Your task to perform on an android device: Go to battery settings Image 0: 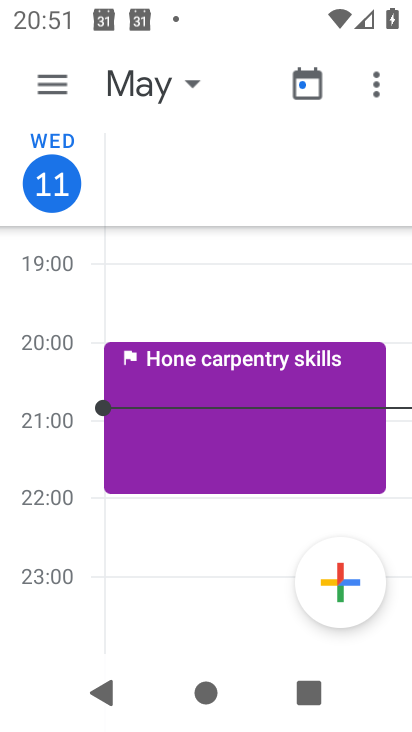
Step 0: press home button
Your task to perform on an android device: Go to battery settings Image 1: 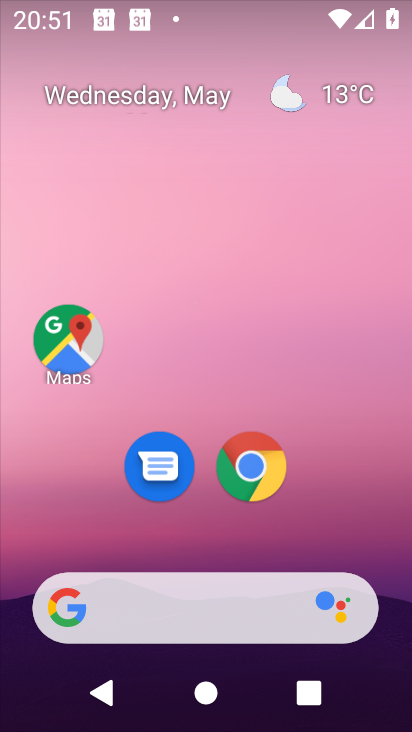
Step 1: drag from (211, 549) to (240, 83)
Your task to perform on an android device: Go to battery settings Image 2: 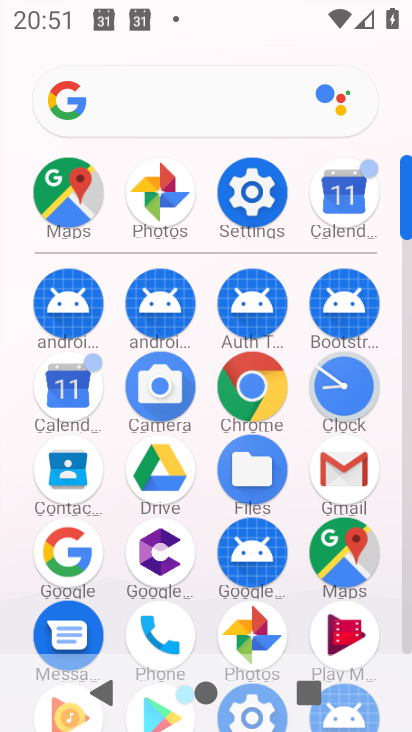
Step 2: click (249, 186)
Your task to perform on an android device: Go to battery settings Image 3: 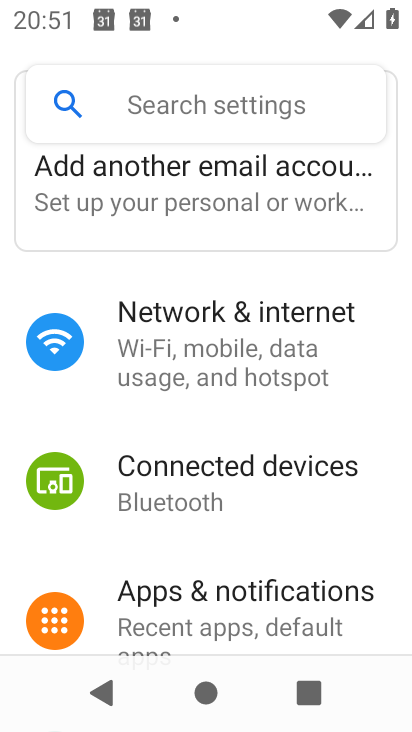
Step 3: drag from (235, 598) to (277, 134)
Your task to perform on an android device: Go to battery settings Image 4: 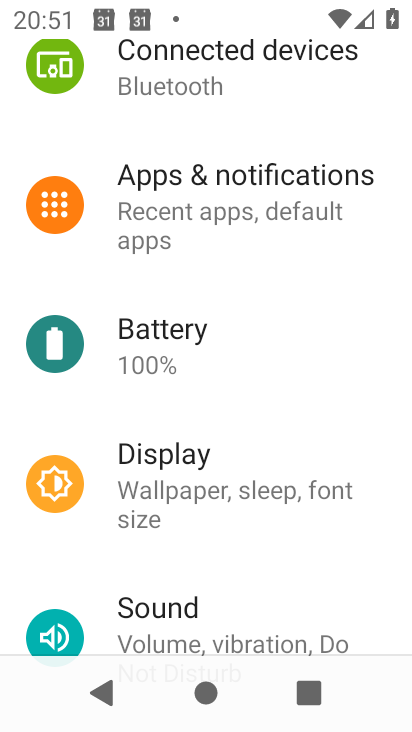
Step 4: click (197, 352)
Your task to perform on an android device: Go to battery settings Image 5: 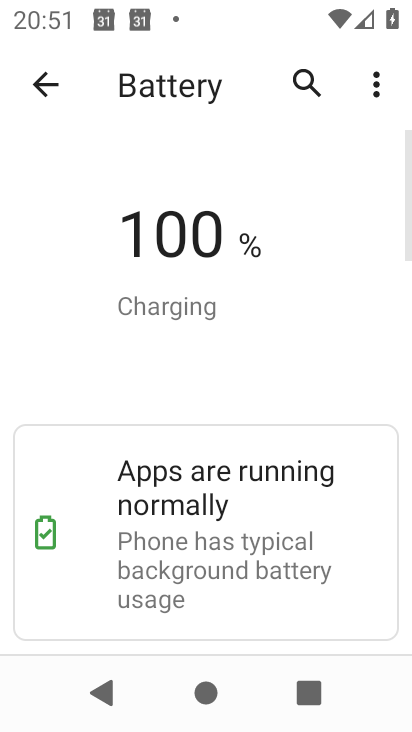
Step 5: task complete